Your task to perform on an android device: Go to Google Image 0: 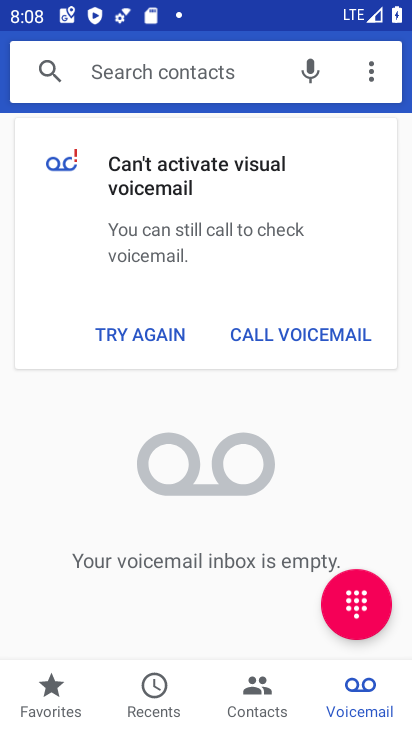
Step 0: press home button
Your task to perform on an android device: Go to Google Image 1: 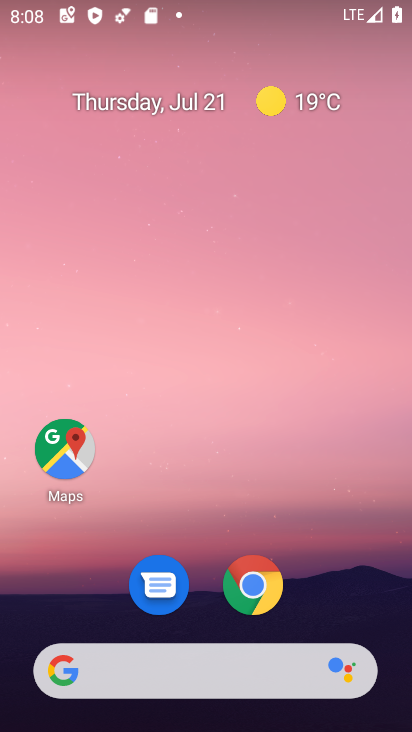
Step 1: click (204, 679)
Your task to perform on an android device: Go to Google Image 2: 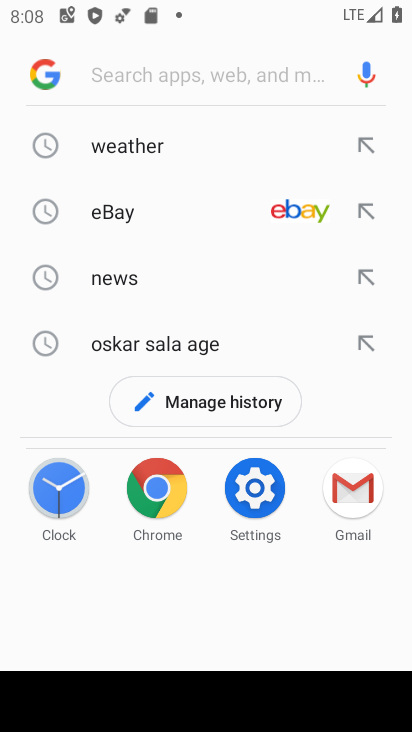
Step 2: click (35, 77)
Your task to perform on an android device: Go to Google Image 3: 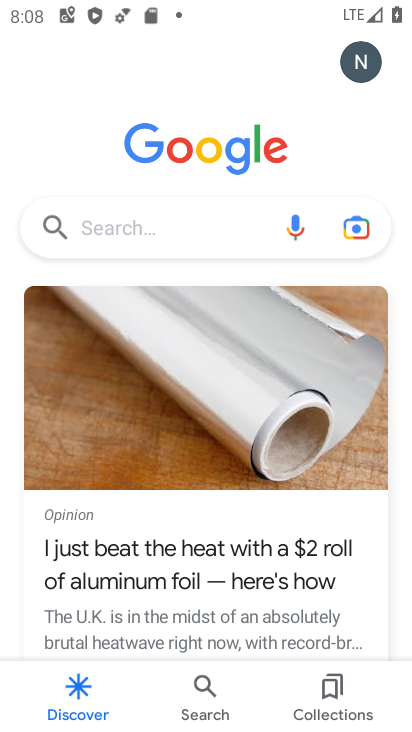
Step 3: task complete